Your task to perform on an android device: Open internet settings Image 0: 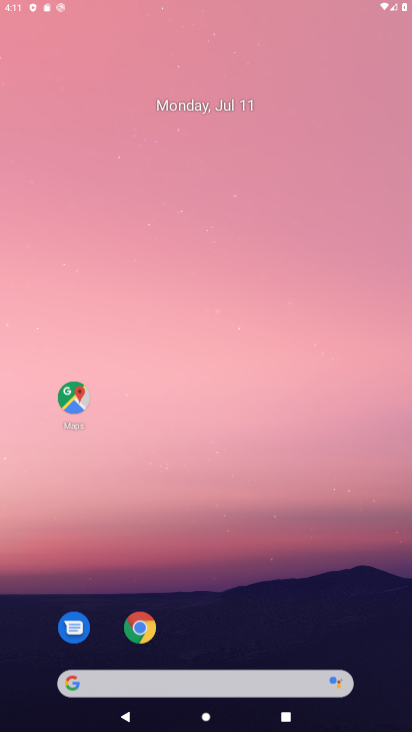
Step 0: drag from (230, 159) to (245, 66)
Your task to perform on an android device: Open internet settings Image 1: 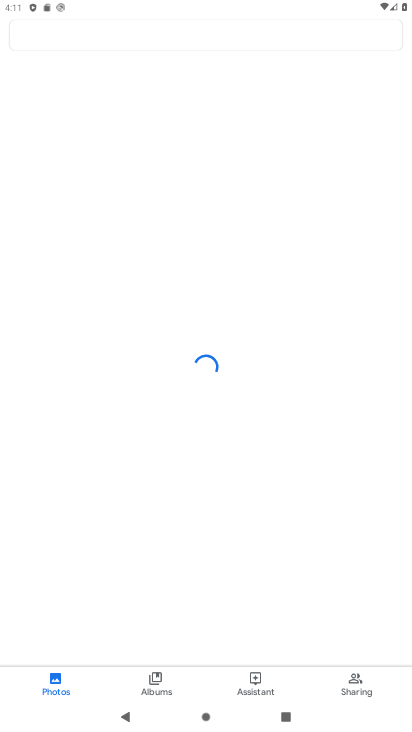
Step 1: press home button
Your task to perform on an android device: Open internet settings Image 2: 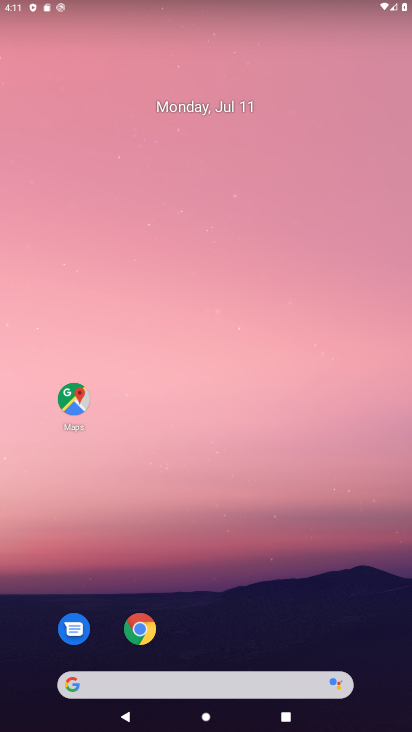
Step 2: drag from (211, 672) to (331, 94)
Your task to perform on an android device: Open internet settings Image 3: 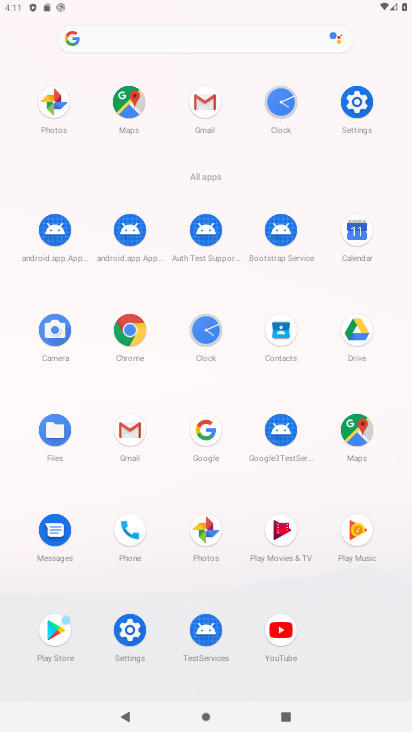
Step 3: click (134, 627)
Your task to perform on an android device: Open internet settings Image 4: 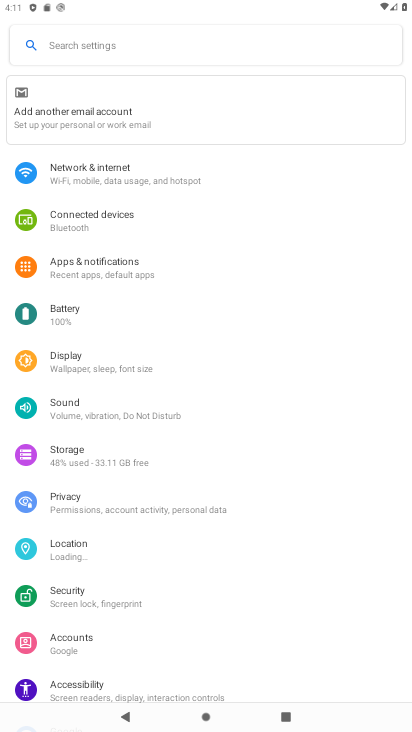
Step 4: click (133, 180)
Your task to perform on an android device: Open internet settings Image 5: 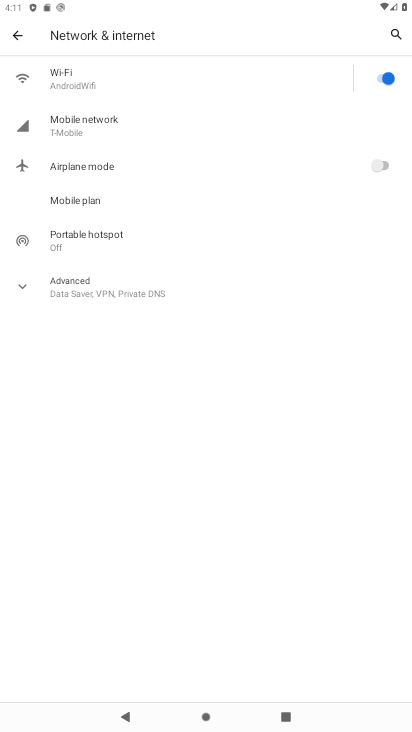
Step 5: click (104, 128)
Your task to perform on an android device: Open internet settings Image 6: 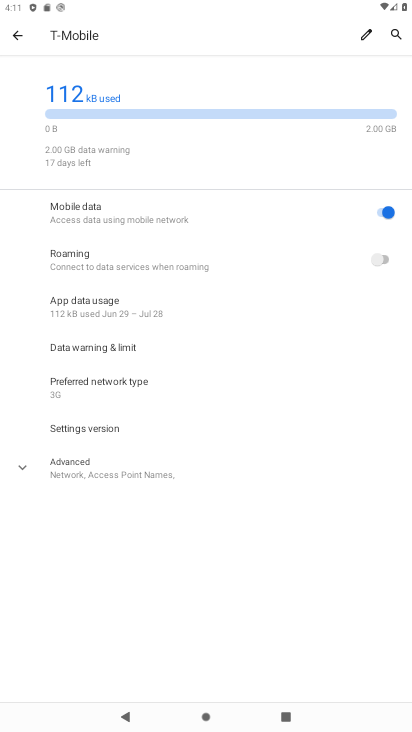
Step 6: task complete